Your task to perform on an android device: Is it going to rain tomorrow? Image 0: 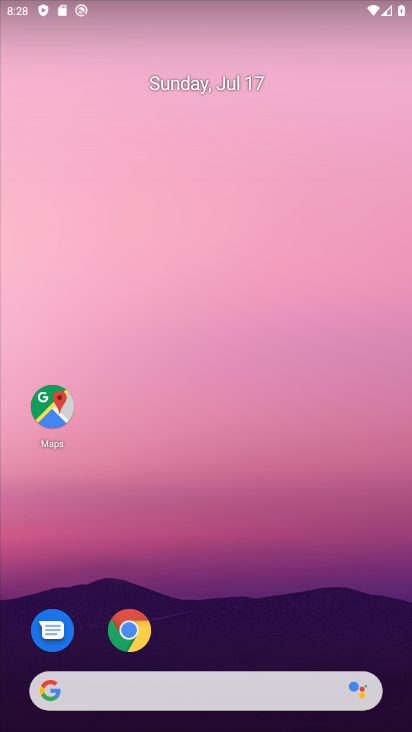
Step 0: click (244, 637)
Your task to perform on an android device: Is it going to rain tomorrow? Image 1: 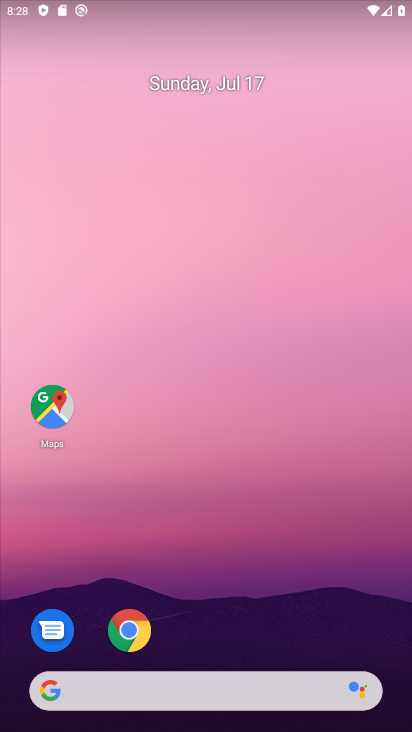
Step 1: click (224, 680)
Your task to perform on an android device: Is it going to rain tomorrow? Image 2: 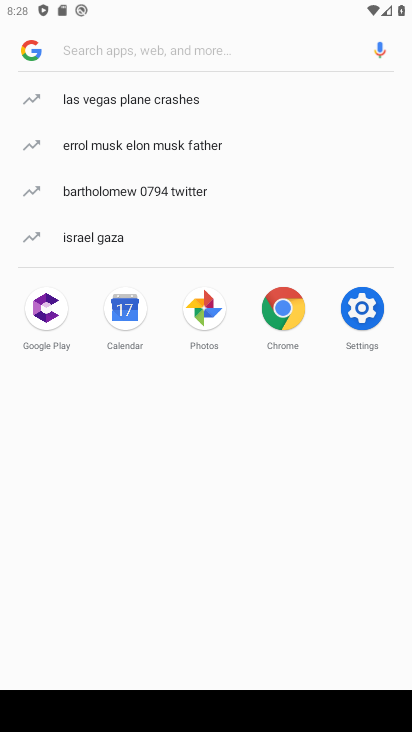
Step 2: type "weather"
Your task to perform on an android device: Is it going to rain tomorrow? Image 3: 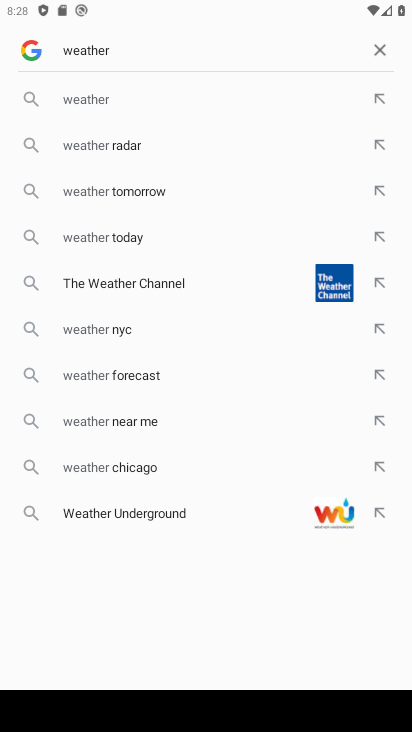
Step 3: click (176, 110)
Your task to perform on an android device: Is it going to rain tomorrow? Image 4: 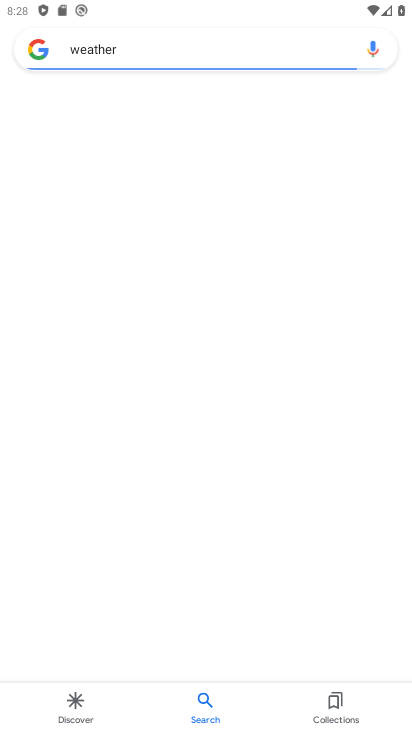
Step 4: task complete